Your task to perform on an android device: Open the calendar and show me this week's events? Image 0: 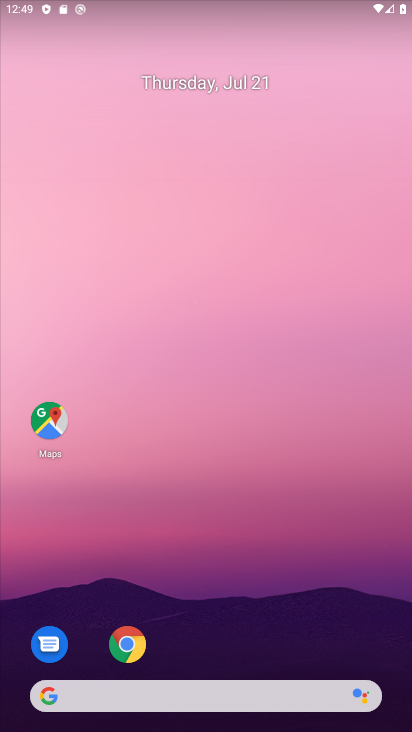
Step 0: drag from (189, 665) to (178, 105)
Your task to perform on an android device: Open the calendar and show me this week's events? Image 1: 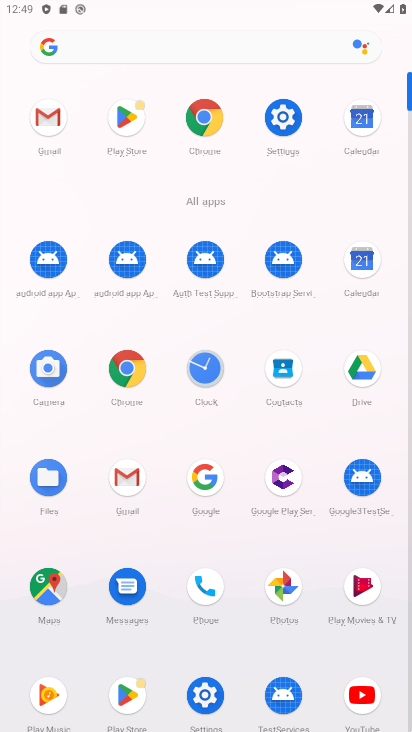
Step 1: click (371, 265)
Your task to perform on an android device: Open the calendar and show me this week's events? Image 2: 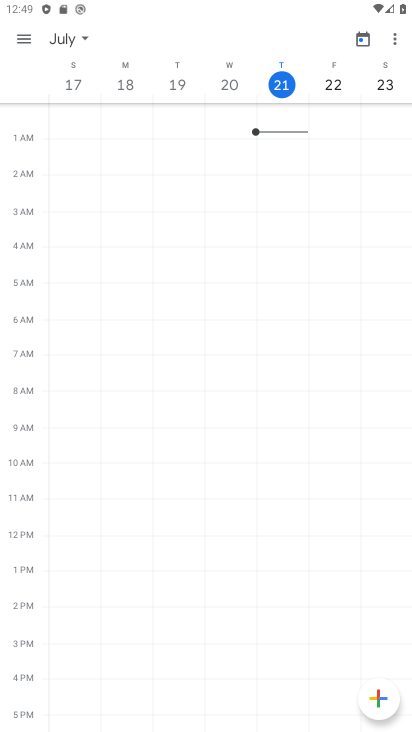
Step 2: task complete